Your task to perform on an android device: find snoozed emails in the gmail app Image 0: 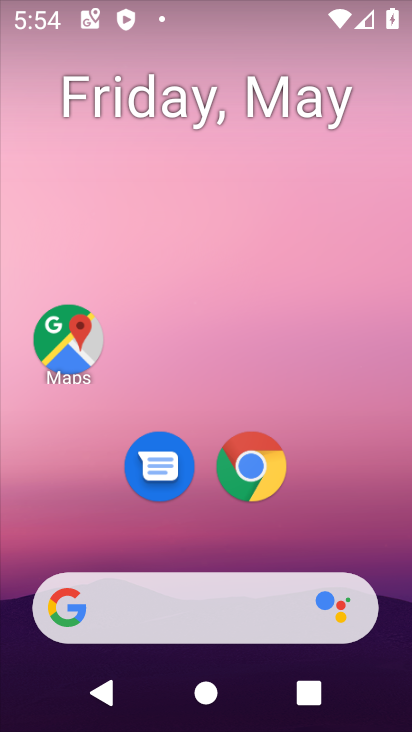
Step 0: drag from (372, 501) to (288, 37)
Your task to perform on an android device: find snoozed emails in the gmail app Image 1: 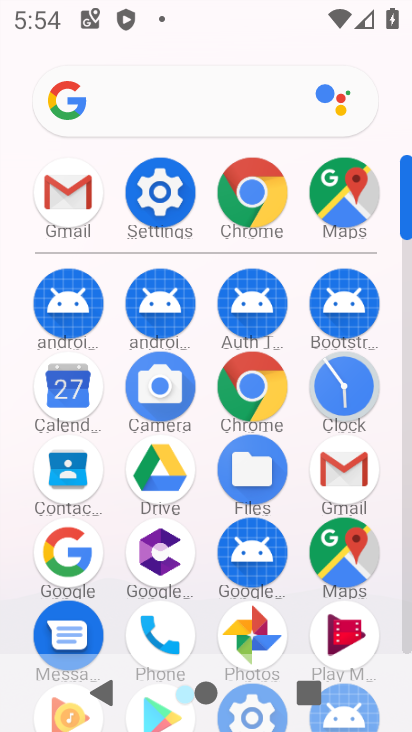
Step 1: drag from (7, 580) to (0, 220)
Your task to perform on an android device: find snoozed emails in the gmail app Image 2: 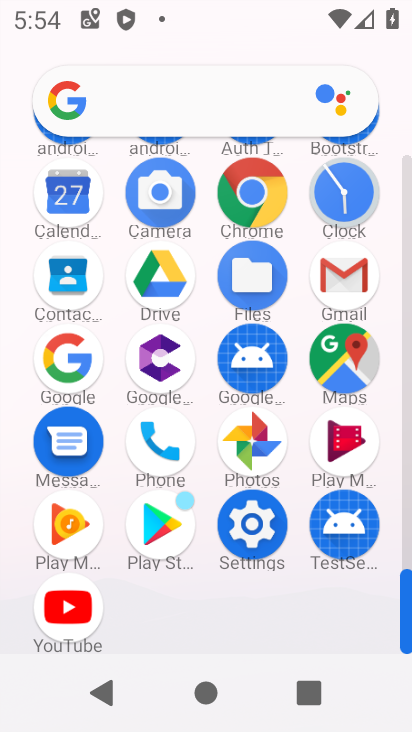
Step 2: click (342, 268)
Your task to perform on an android device: find snoozed emails in the gmail app Image 3: 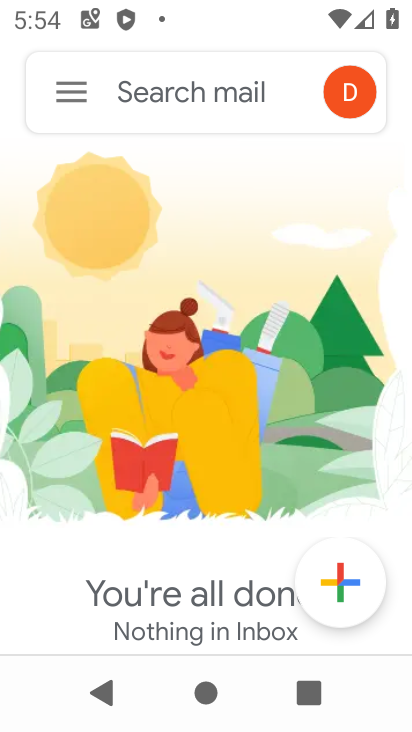
Step 3: click (69, 101)
Your task to perform on an android device: find snoozed emails in the gmail app Image 4: 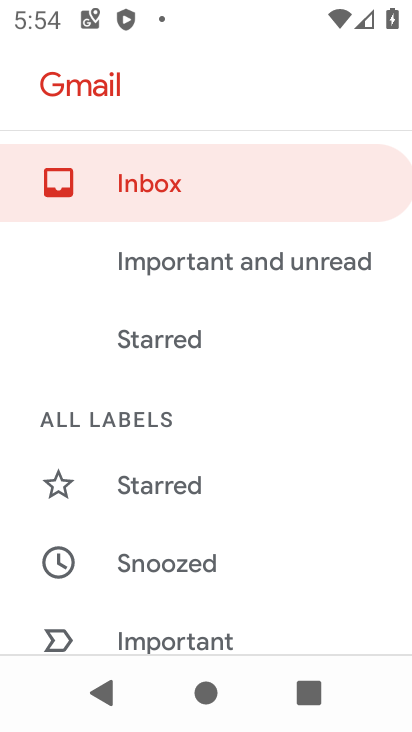
Step 4: drag from (267, 573) to (238, 287)
Your task to perform on an android device: find snoozed emails in the gmail app Image 5: 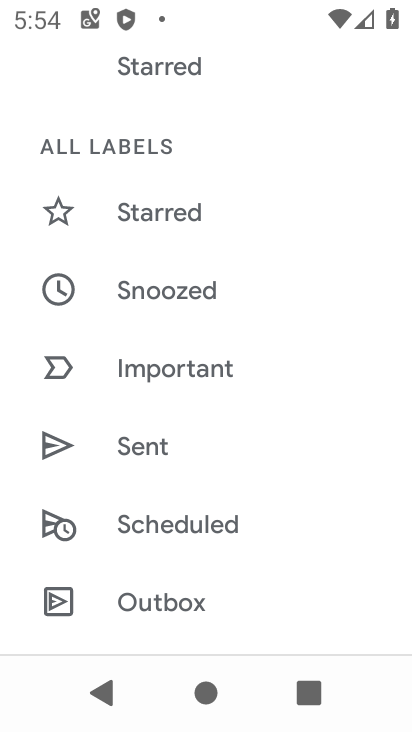
Step 5: click (169, 285)
Your task to perform on an android device: find snoozed emails in the gmail app Image 6: 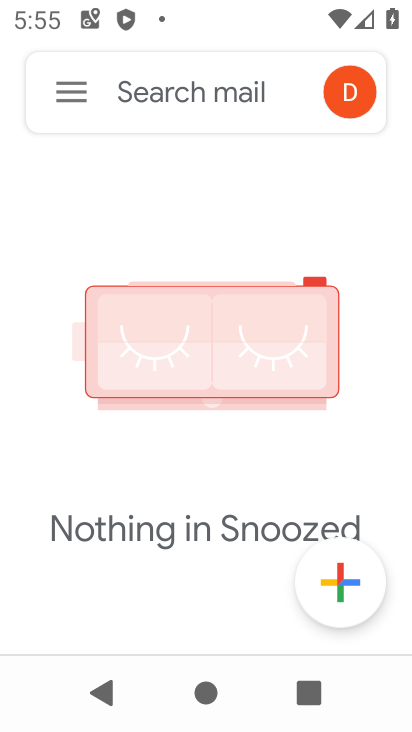
Step 6: task complete